Your task to perform on an android device: Open Amazon Image 0: 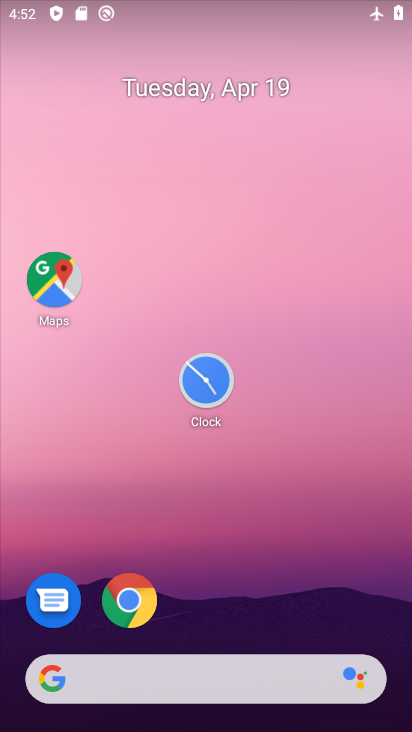
Step 0: drag from (313, 416) to (220, 206)
Your task to perform on an android device: Open Amazon Image 1: 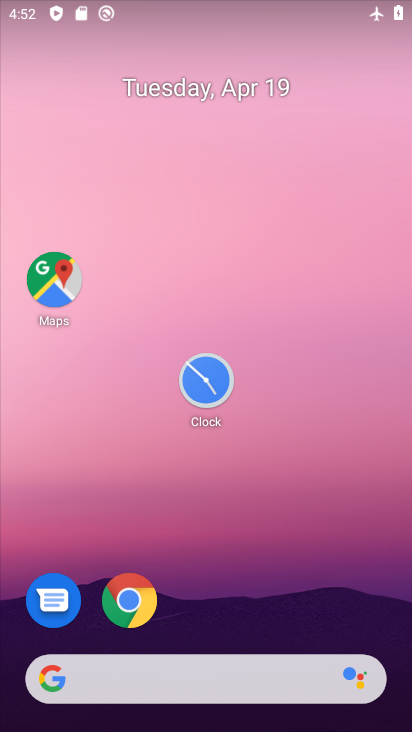
Step 1: drag from (354, 564) to (163, 240)
Your task to perform on an android device: Open Amazon Image 2: 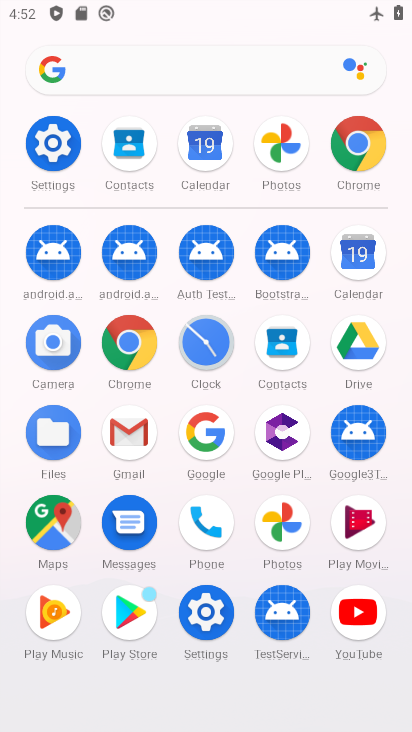
Step 2: click (350, 146)
Your task to perform on an android device: Open Amazon Image 3: 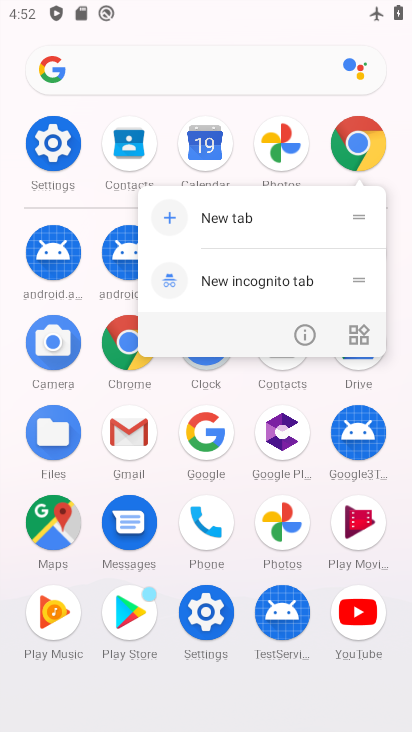
Step 3: click (355, 143)
Your task to perform on an android device: Open Amazon Image 4: 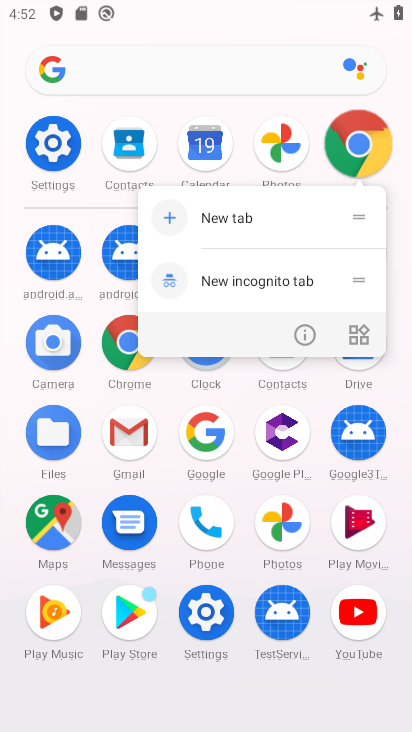
Step 4: click (355, 143)
Your task to perform on an android device: Open Amazon Image 5: 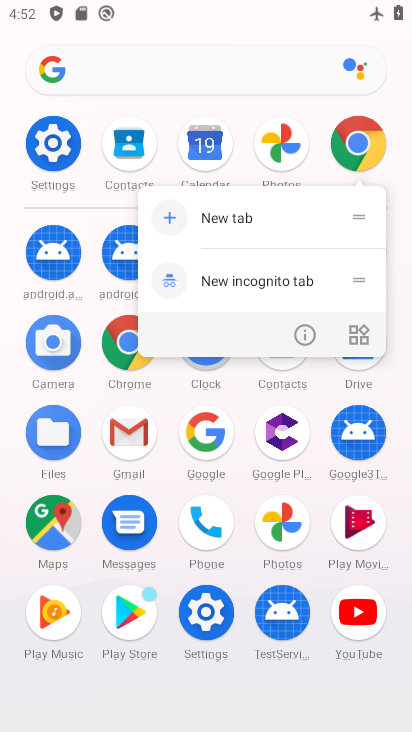
Step 5: click (357, 141)
Your task to perform on an android device: Open Amazon Image 6: 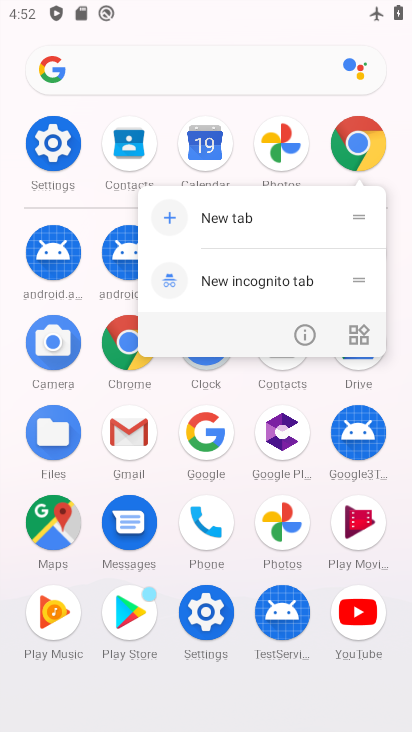
Step 6: click (358, 142)
Your task to perform on an android device: Open Amazon Image 7: 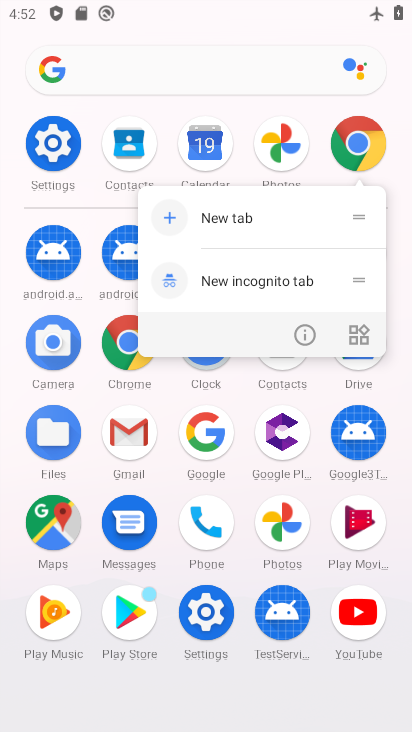
Step 7: drag from (358, 142) to (365, 180)
Your task to perform on an android device: Open Amazon Image 8: 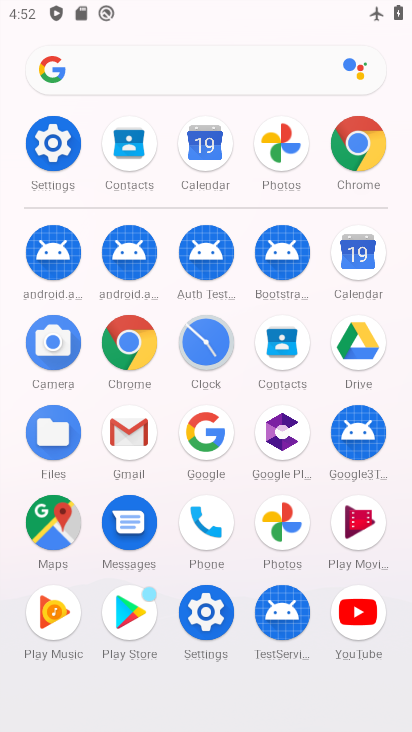
Step 8: click (364, 150)
Your task to perform on an android device: Open Amazon Image 9: 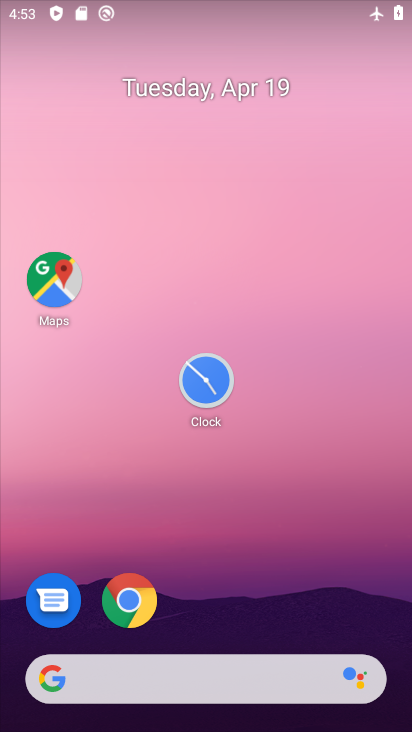
Step 9: drag from (201, 456) to (90, 41)
Your task to perform on an android device: Open Amazon Image 10: 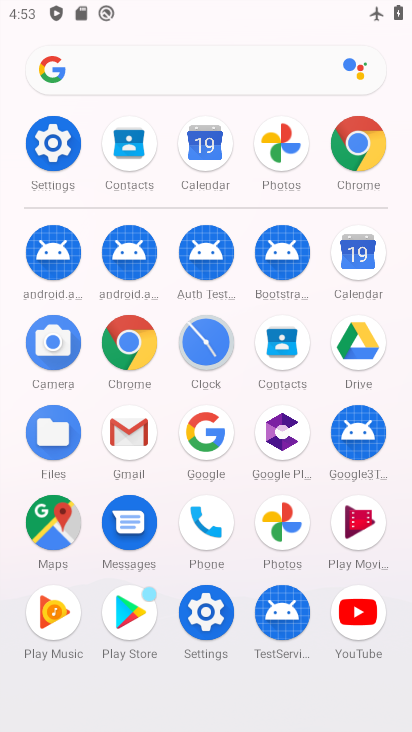
Step 10: click (360, 148)
Your task to perform on an android device: Open Amazon Image 11: 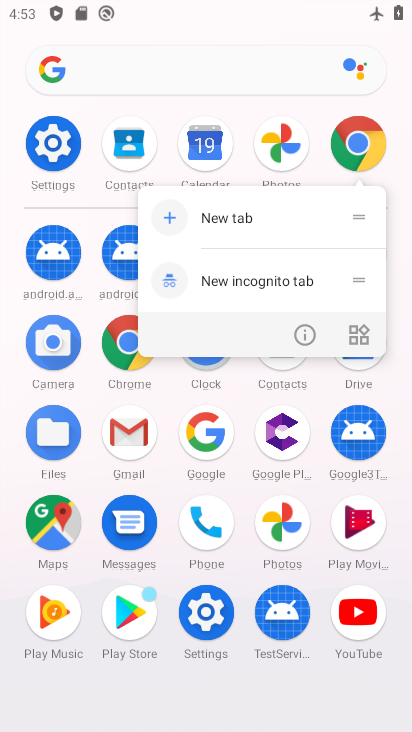
Step 11: click (359, 146)
Your task to perform on an android device: Open Amazon Image 12: 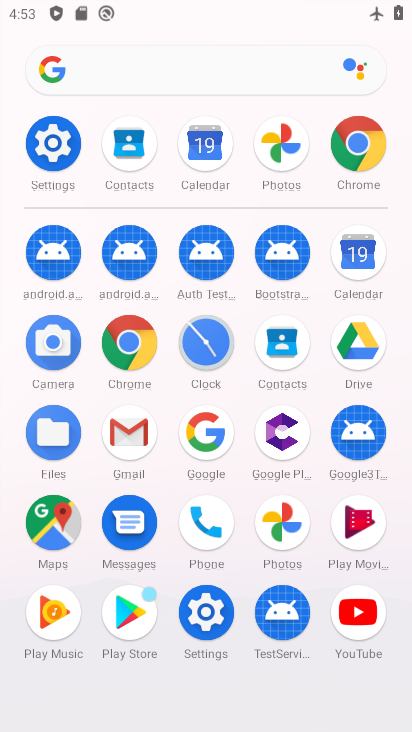
Step 12: click (352, 130)
Your task to perform on an android device: Open Amazon Image 13: 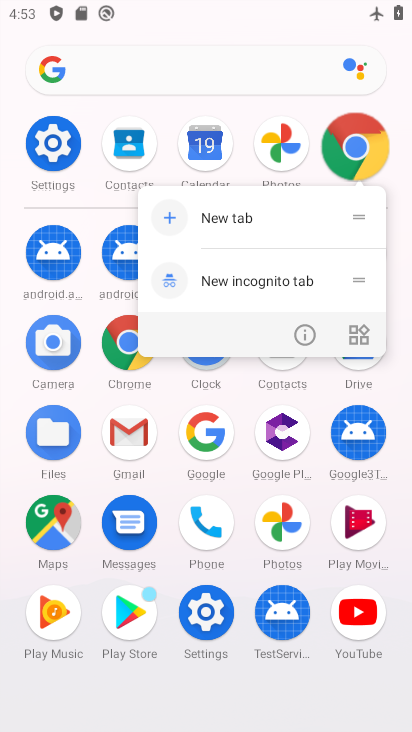
Step 13: click (349, 133)
Your task to perform on an android device: Open Amazon Image 14: 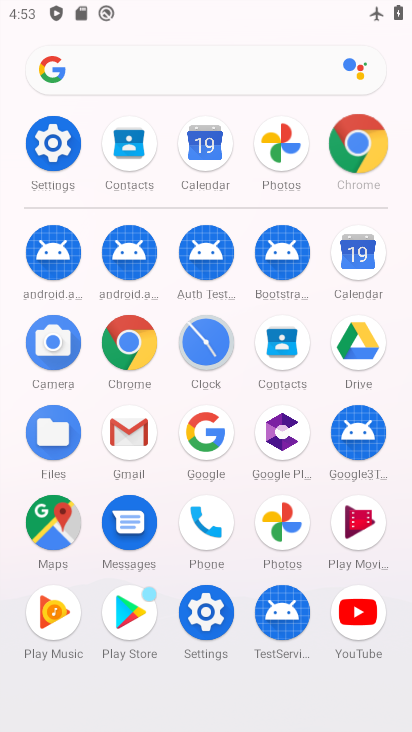
Step 14: click (348, 134)
Your task to perform on an android device: Open Amazon Image 15: 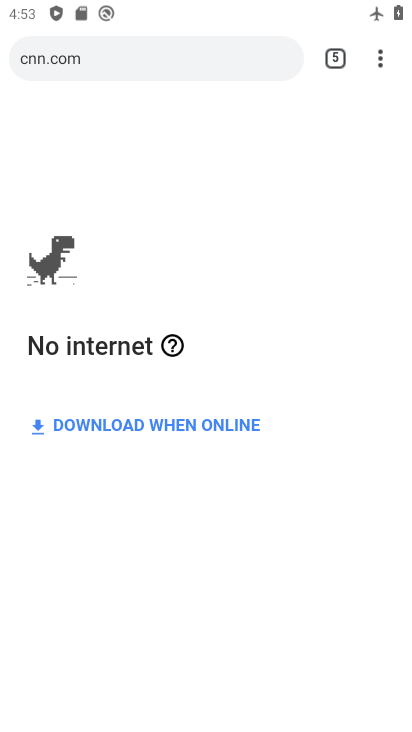
Step 15: drag from (216, 10) to (228, 710)
Your task to perform on an android device: Open Amazon Image 16: 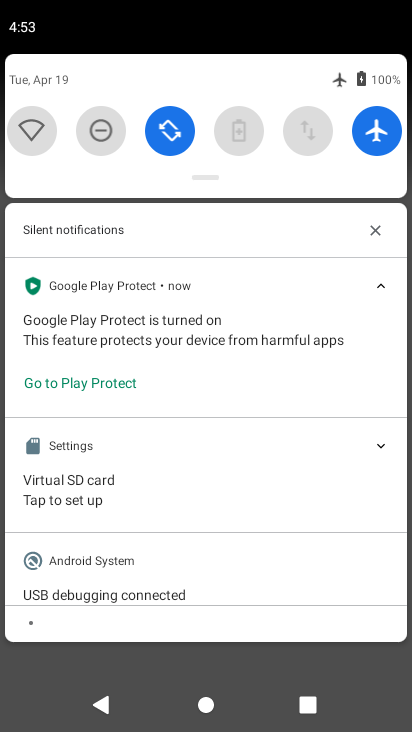
Step 16: click (21, 120)
Your task to perform on an android device: Open Amazon Image 17: 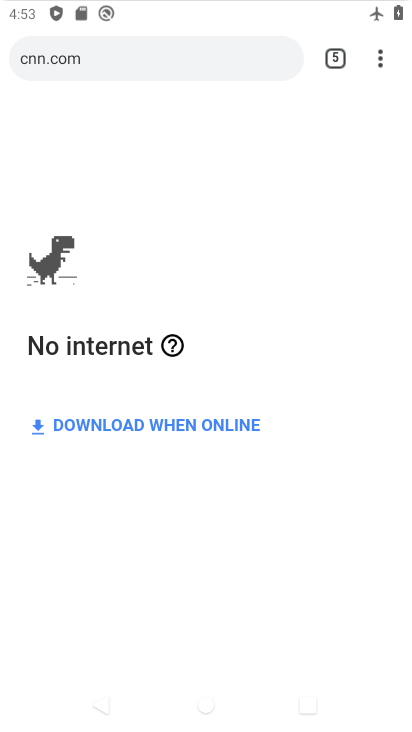
Step 17: click (381, 128)
Your task to perform on an android device: Open Amazon Image 18: 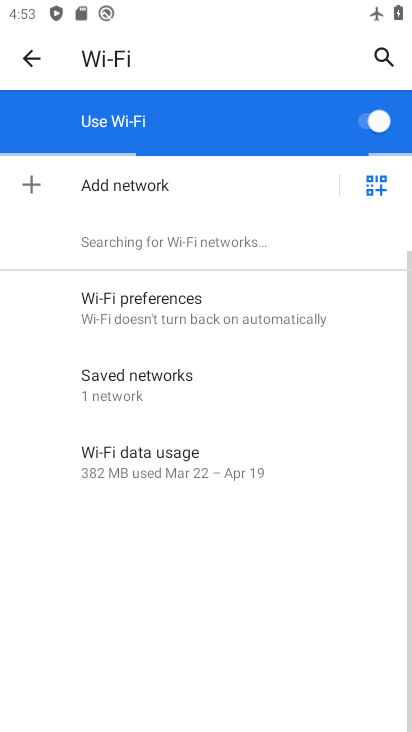
Step 18: drag from (190, 531) to (290, 717)
Your task to perform on an android device: Open Amazon Image 19: 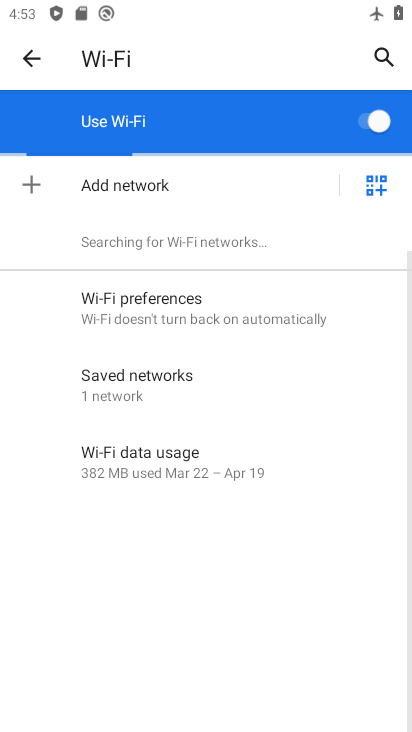
Step 19: drag from (172, 0) to (147, 657)
Your task to perform on an android device: Open Amazon Image 20: 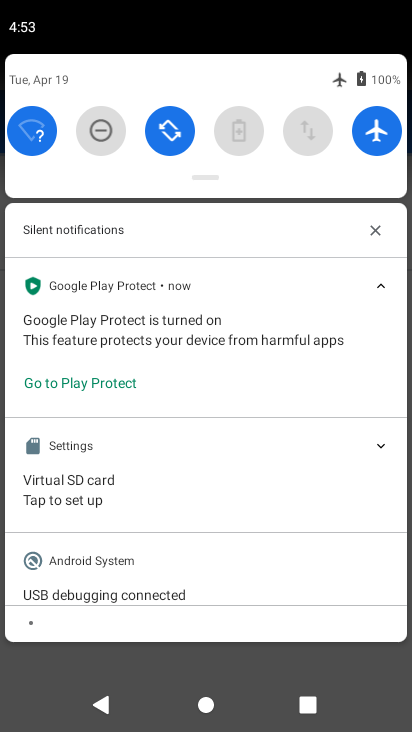
Step 20: click (375, 128)
Your task to perform on an android device: Open Amazon Image 21: 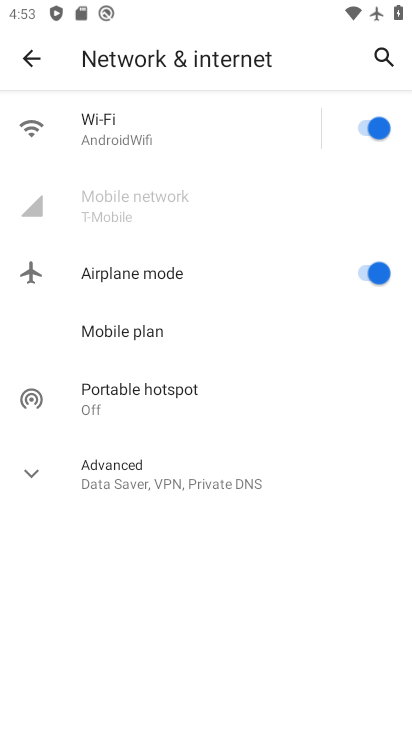
Step 21: click (26, 56)
Your task to perform on an android device: Open Amazon Image 22: 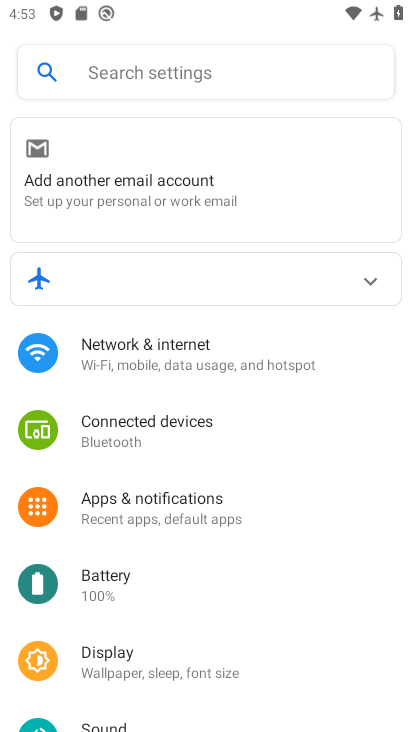
Step 22: drag from (217, 8) to (228, 669)
Your task to perform on an android device: Open Amazon Image 23: 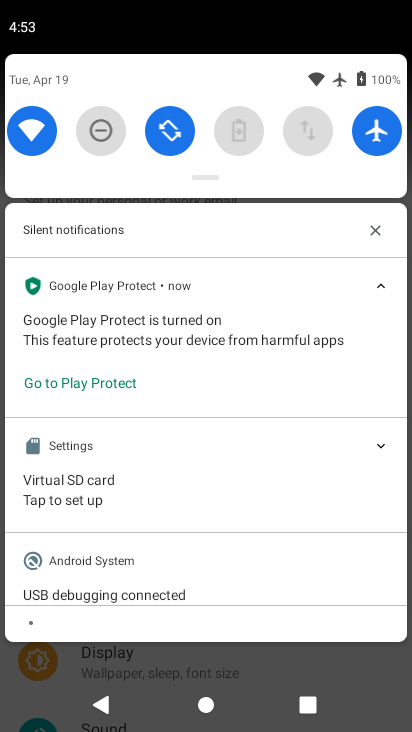
Step 23: drag from (405, 282) to (360, 131)
Your task to perform on an android device: Open Amazon Image 24: 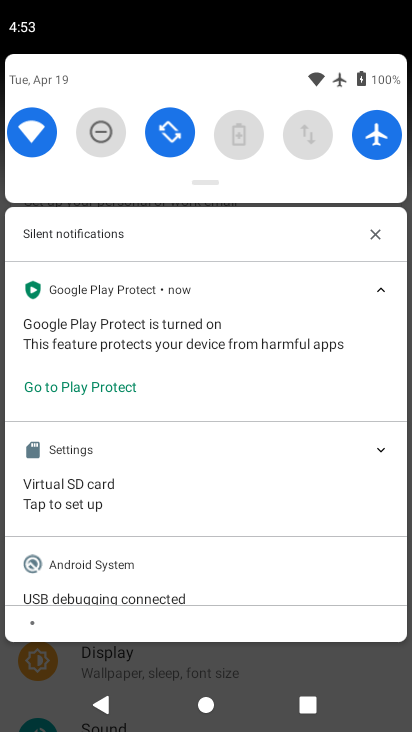
Step 24: click (364, 125)
Your task to perform on an android device: Open Amazon Image 25: 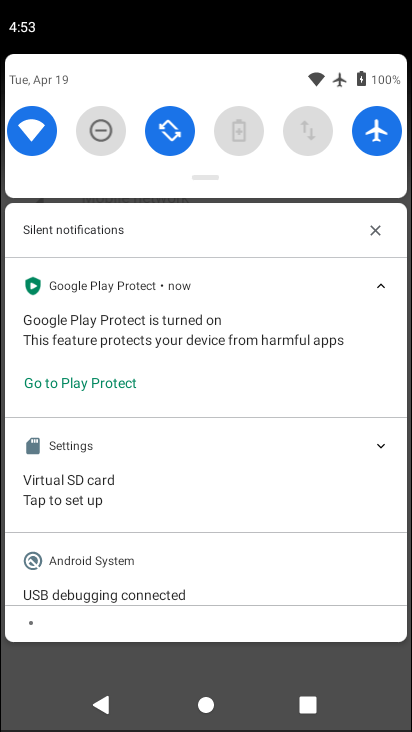
Step 25: click (377, 133)
Your task to perform on an android device: Open Amazon Image 26: 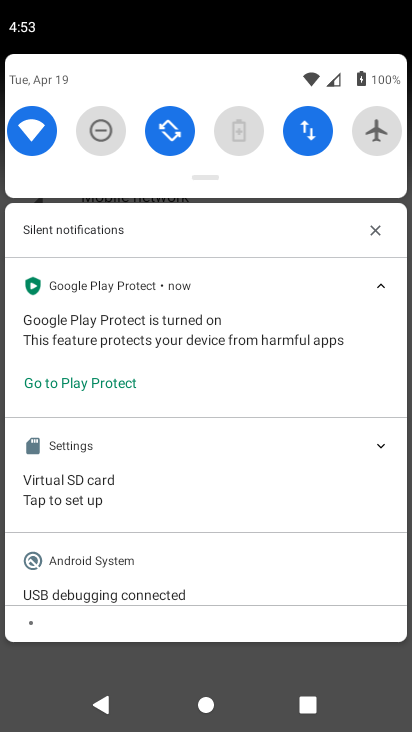
Step 26: click (350, 686)
Your task to perform on an android device: Open Amazon Image 27: 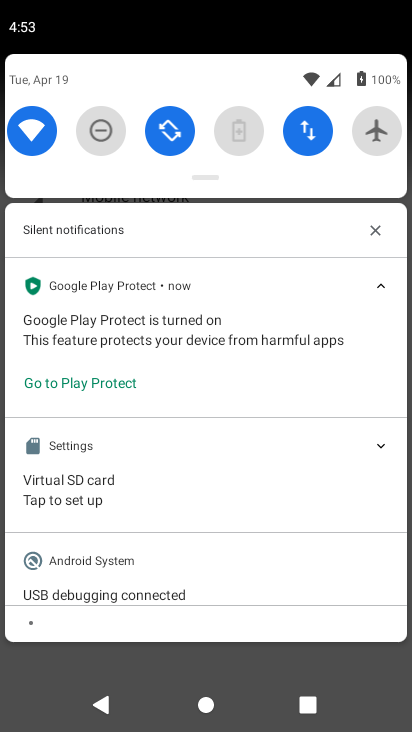
Step 27: click (346, 691)
Your task to perform on an android device: Open Amazon Image 28: 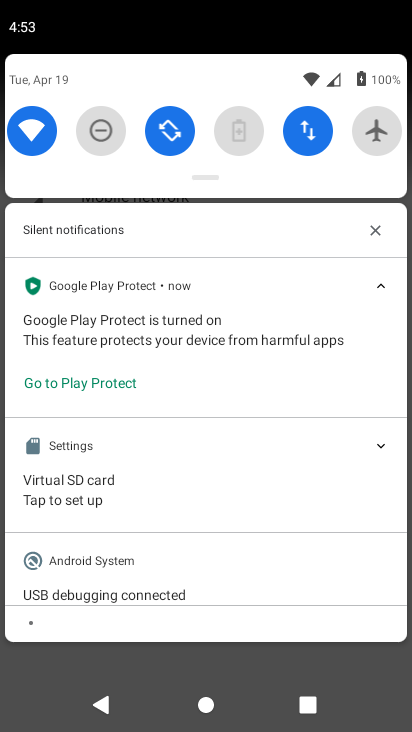
Step 28: click (346, 692)
Your task to perform on an android device: Open Amazon Image 29: 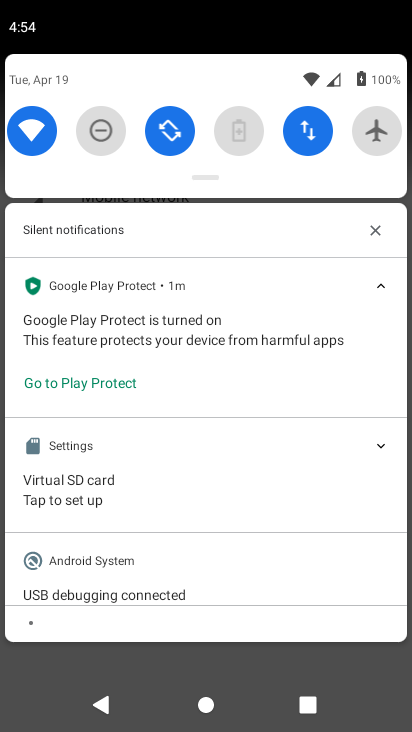
Step 29: press back button
Your task to perform on an android device: Open Amazon Image 30: 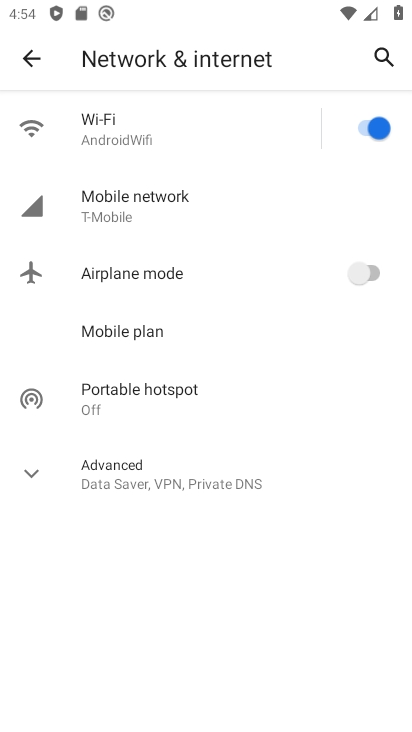
Step 30: press home button
Your task to perform on an android device: Open Amazon Image 31: 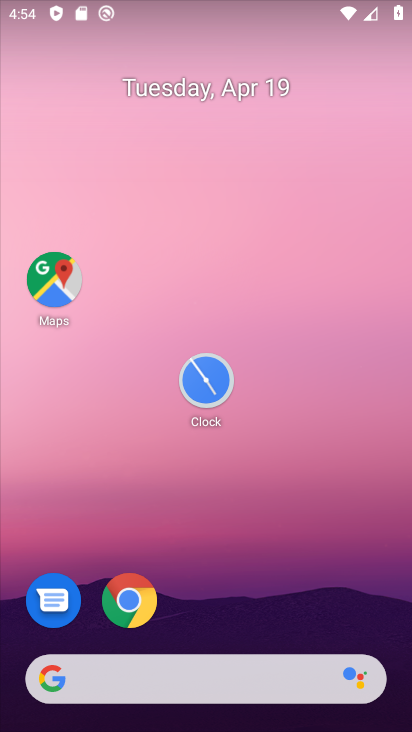
Step 31: drag from (292, 632) to (183, 222)
Your task to perform on an android device: Open Amazon Image 32: 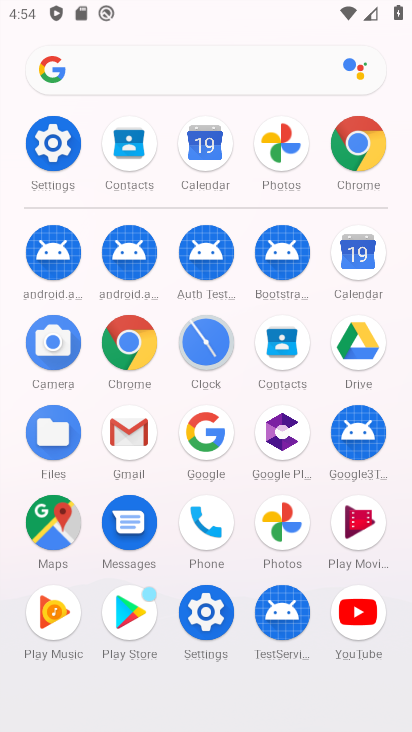
Step 32: click (357, 146)
Your task to perform on an android device: Open Amazon Image 33: 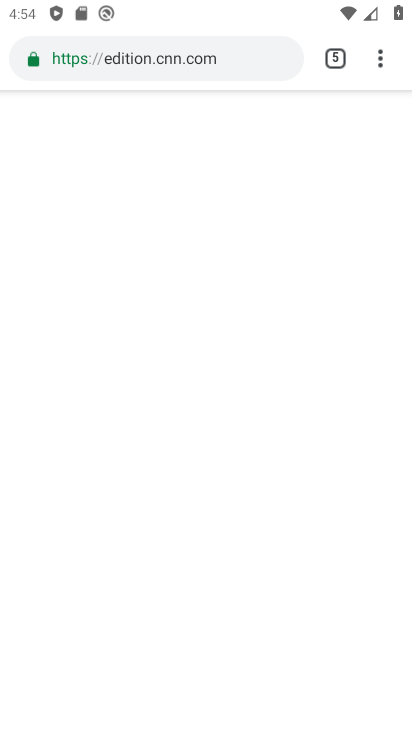
Step 33: task complete